Your task to perform on an android device: open sync settings in chrome Image 0: 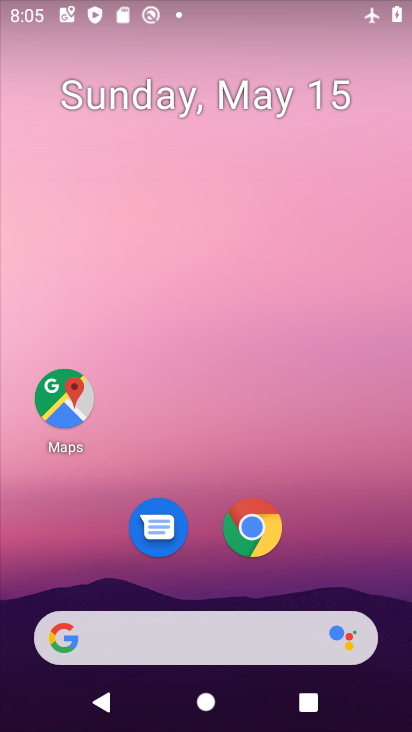
Step 0: click (249, 547)
Your task to perform on an android device: open sync settings in chrome Image 1: 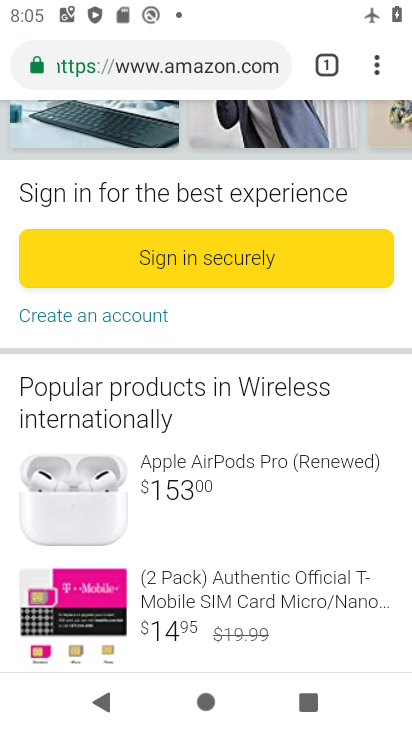
Step 1: drag from (372, 67) to (168, 573)
Your task to perform on an android device: open sync settings in chrome Image 2: 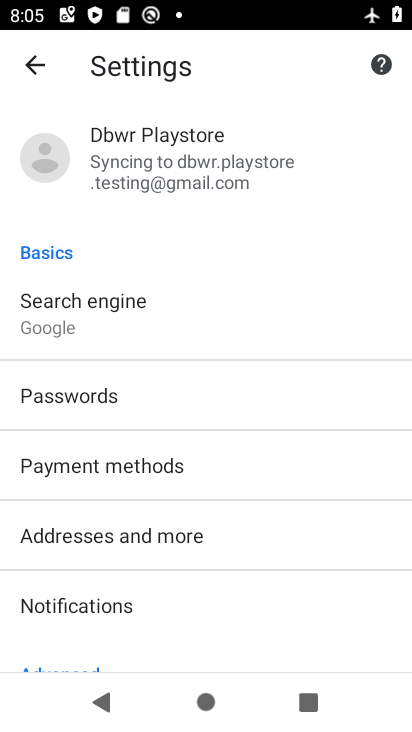
Step 2: drag from (183, 557) to (231, 570)
Your task to perform on an android device: open sync settings in chrome Image 3: 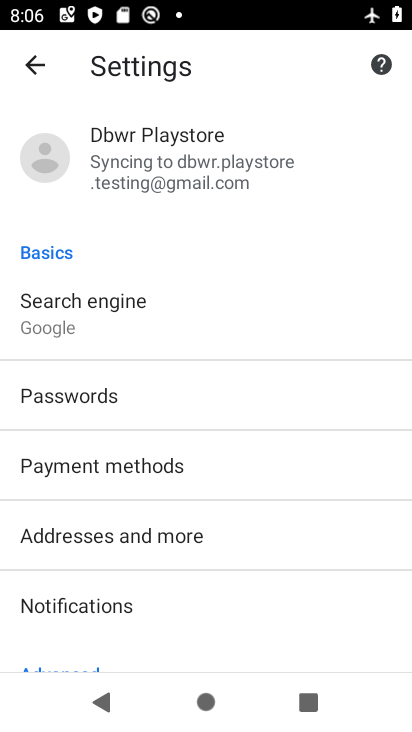
Step 3: click (229, 168)
Your task to perform on an android device: open sync settings in chrome Image 4: 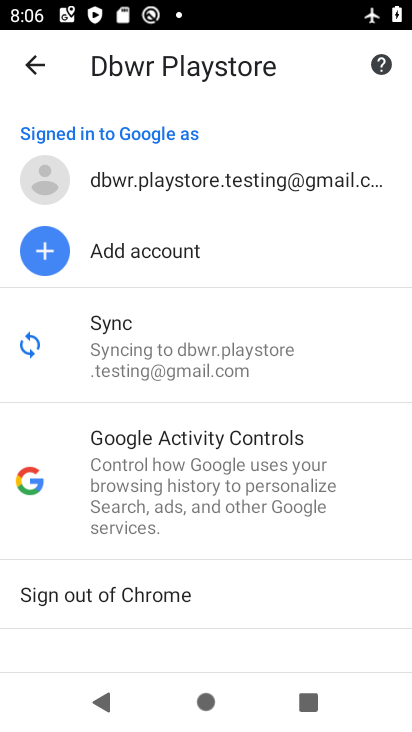
Step 4: click (206, 332)
Your task to perform on an android device: open sync settings in chrome Image 5: 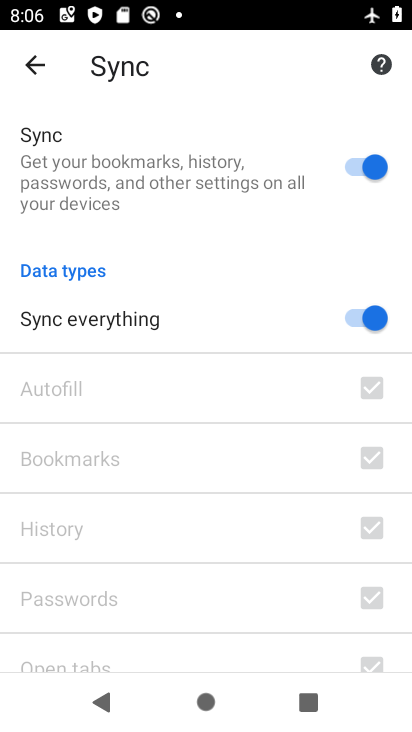
Step 5: task complete